Your task to perform on an android device: Open Chrome and go to settings Image 0: 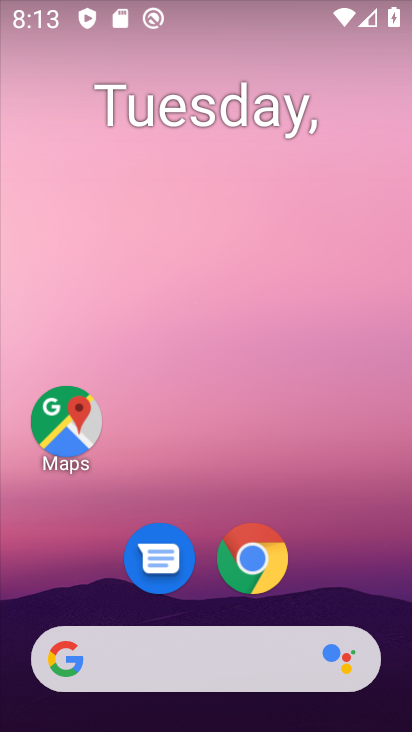
Step 0: click (257, 569)
Your task to perform on an android device: Open Chrome and go to settings Image 1: 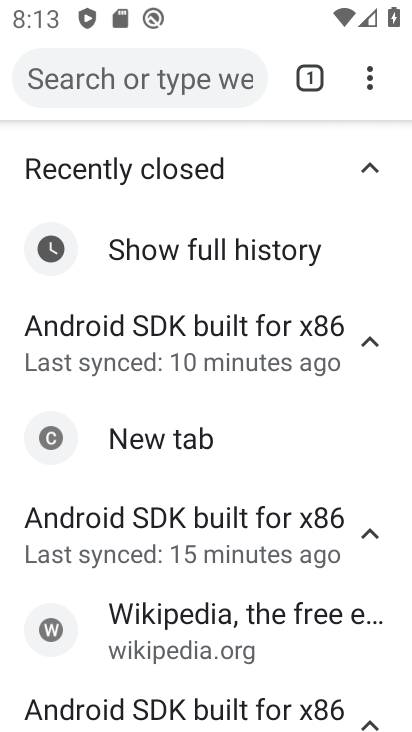
Step 1: task complete